Your task to perform on an android device: toggle notification dots Image 0: 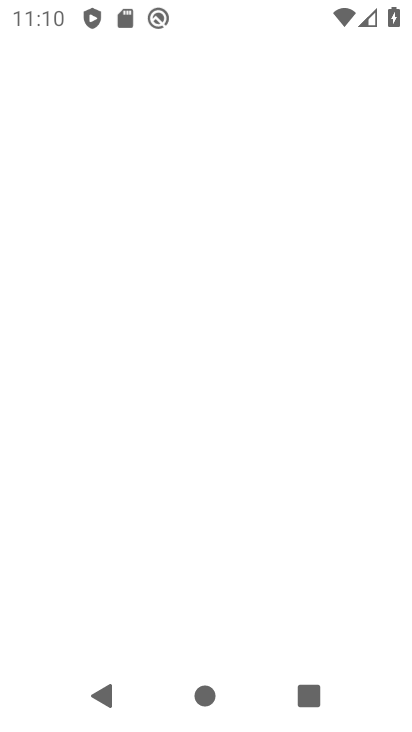
Step 0: press home button
Your task to perform on an android device: toggle notification dots Image 1: 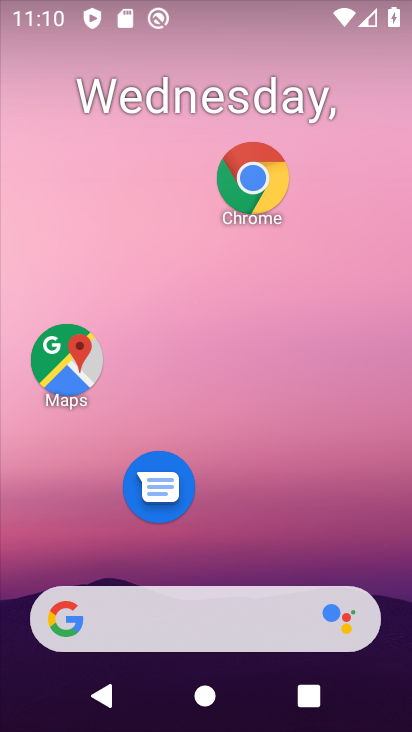
Step 1: drag from (272, 401) to (273, 21)
Your task to perform on an android device: toggle notification dots Image 2: 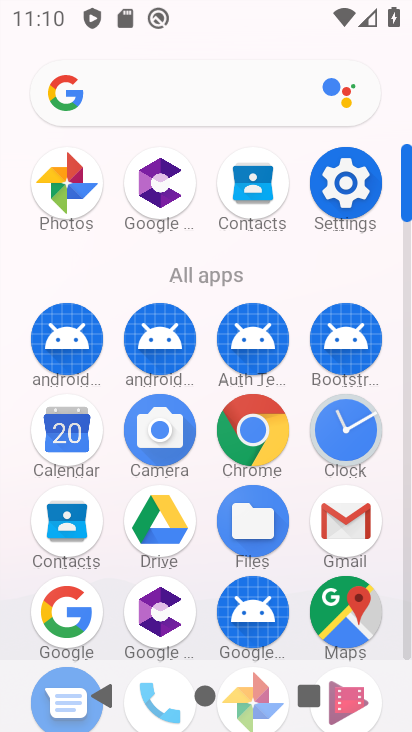
Step 2: click (355, 189)
Your task to perform on an android device: toggle notification dots Image 3: 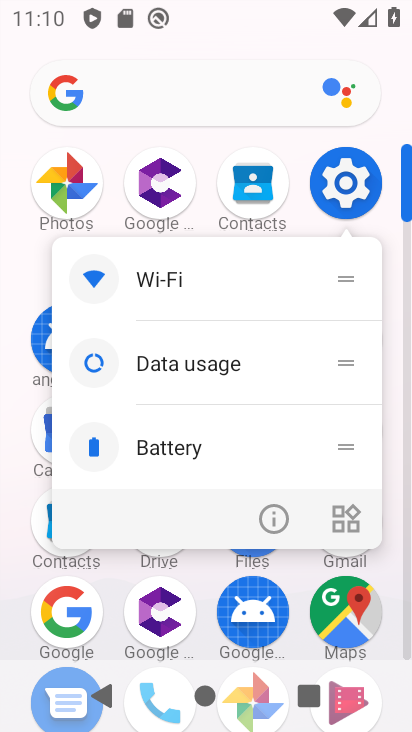
Step 3: click (355, 189)
Your task to perform on an android device: toggle notification dots Image 4: 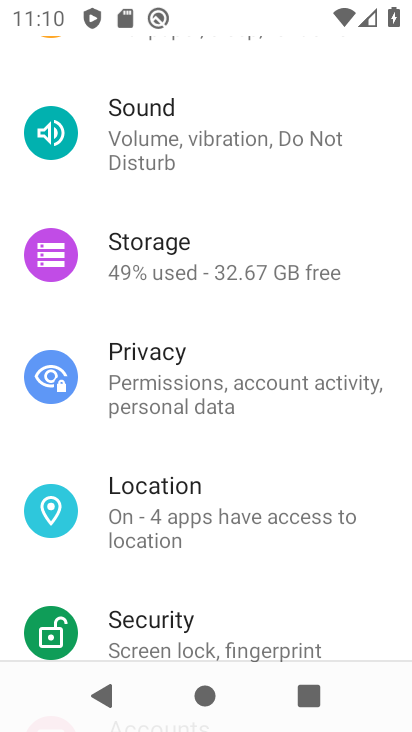
Step 4: drag from (301, 215) to (250, 657)
Your task to perform on an android device: toggle notification dots Image 5: 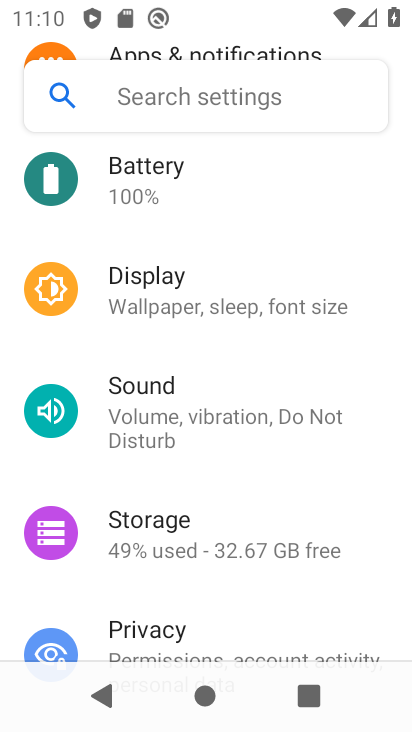
Step 5: drag from (245, 314) to (235, 579)
Your task to perform on an android device: toggle notification dots Image 6: 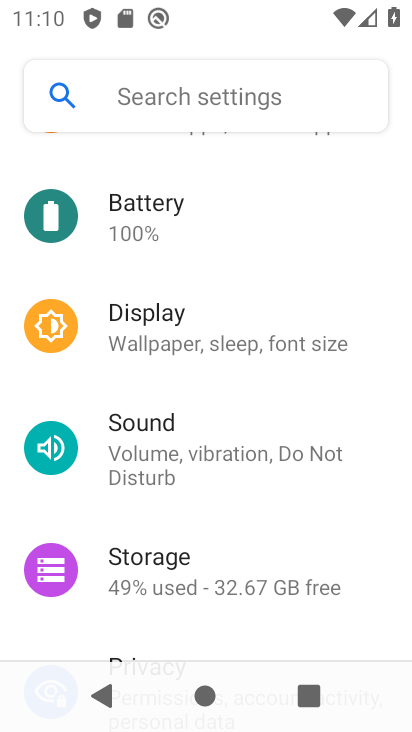
Step 6: drag from (246, 320) to (253, 587)
Your task to perform on an android device: toggle notification dots Image 7: 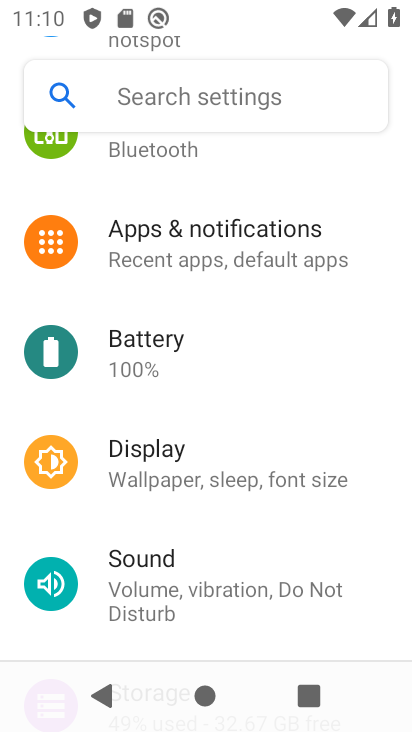
Step 7: click (216, 247)
Your task to perform on an android device: toggle notification dots Image 8: 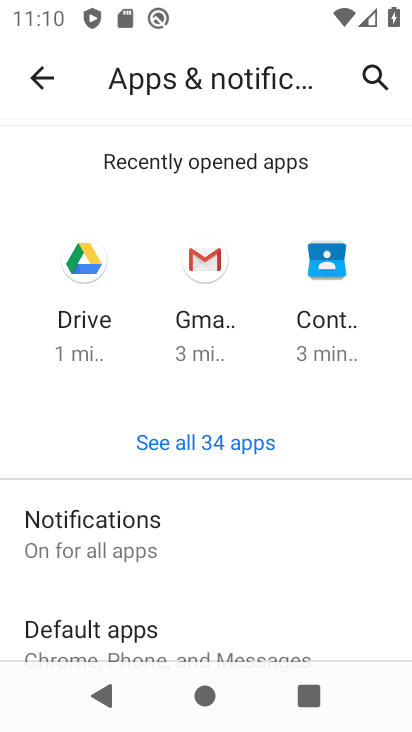
Step 8: click (155, 533)
Your task to perform on an android device: toggle notification dots Image 9: 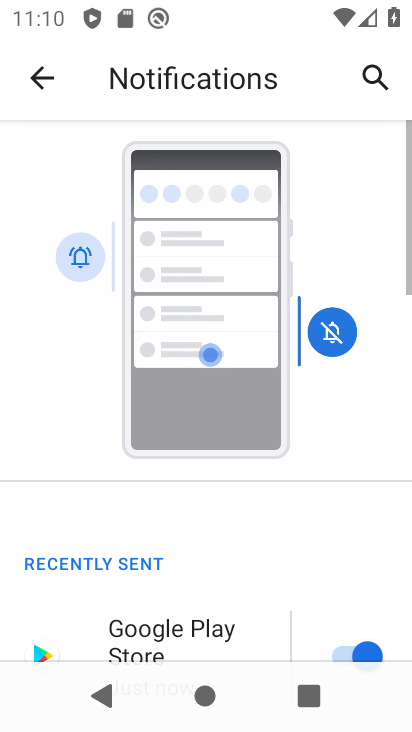
Step 9: drag from (278, 497) to (278, 155)
Your task to perform on an android device: toggle notification dots Image 10: 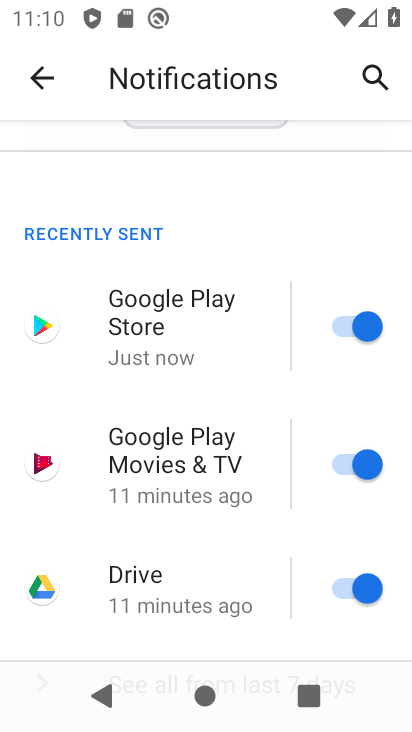
Step 10: drag from (211, 575) to (204, 194)
Your task to perform on an android device: toggle notification dots Image 11: 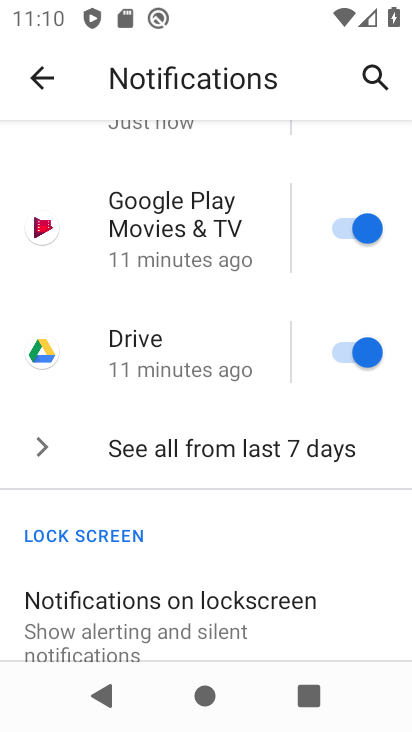
Step 11: drag from (185, 487) to (195, 168)
Your task to perform on an android device: toggle notification dots Image 12: 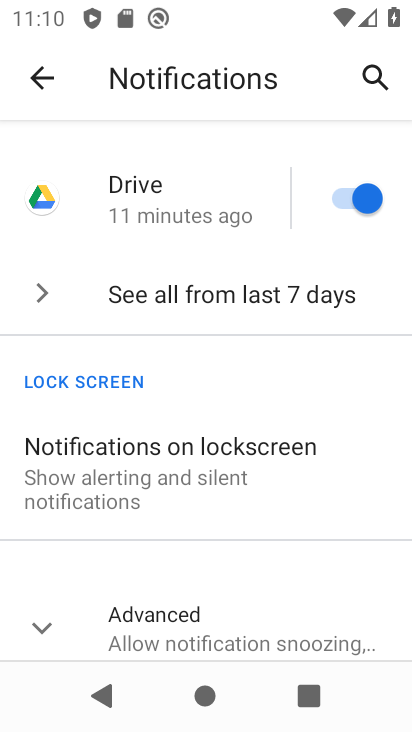
Step 12: click (226, 627)
Your task to perform on an android device: toggle notification dots Image 13: 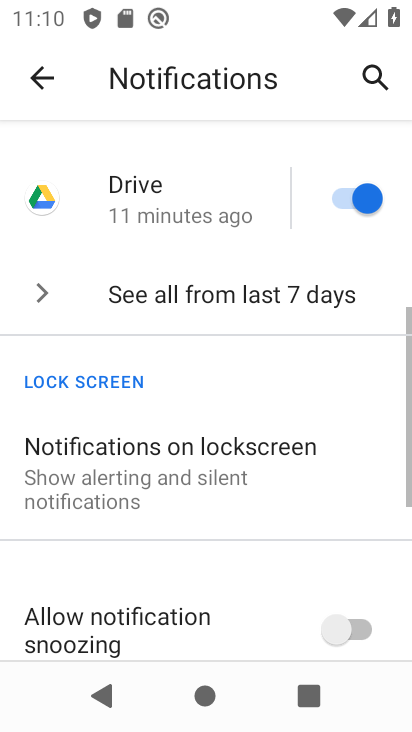
Step 13: drag from (228, 614) to (225, 169)
Your task to perform on an android device: toggle notification dots Image 14: 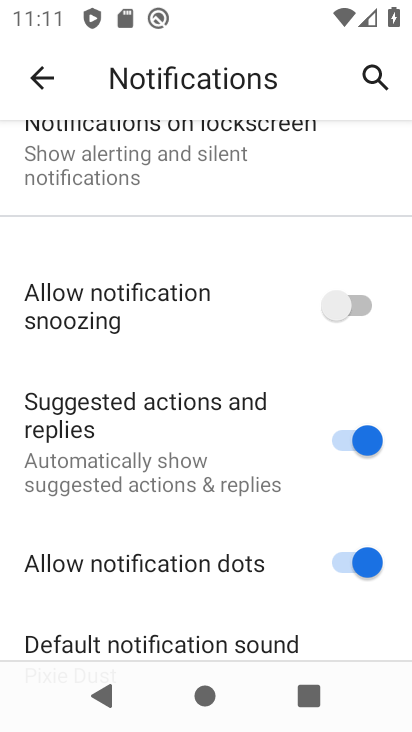
Step 14: click (340, 559)
Your task to perform on an android device: toggle notification dots Image 15: 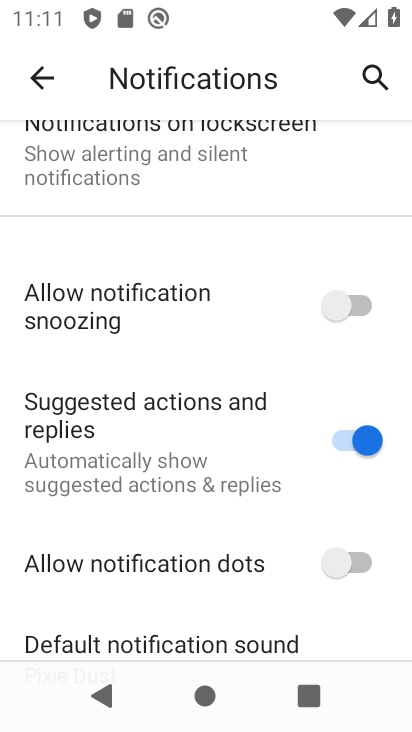
Step 15: task complete